Your task to perform on an android device: delete a single message in the gmail app Image 0: 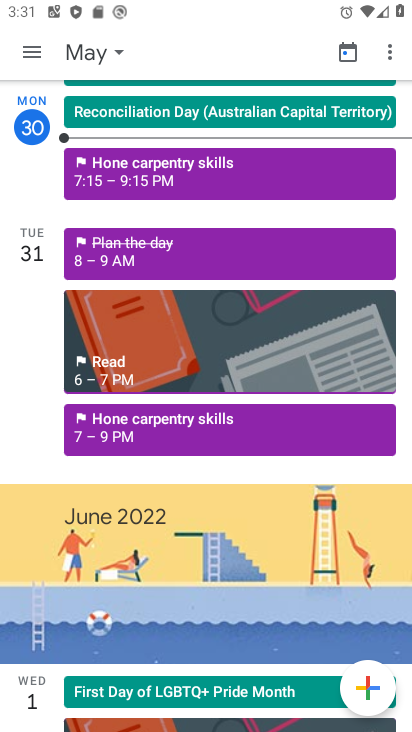
Step 0: press home button
Your task to perform on an android device: delete a single message in the gmail app Image 1: 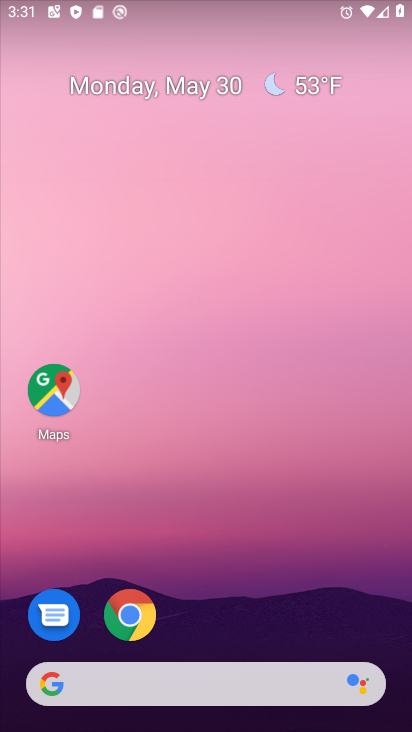
Step 1: drag from (250, 572) to (269, 148)
Your task to perform on an android device: delete a single message in the gmail app Image 2: 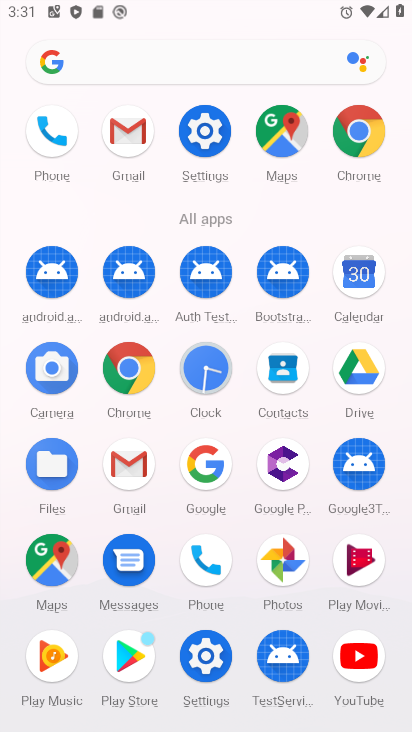
Step 2: click (125, 162)
Your task to perform on an android device: delete a single message in the gmail app Image 3: 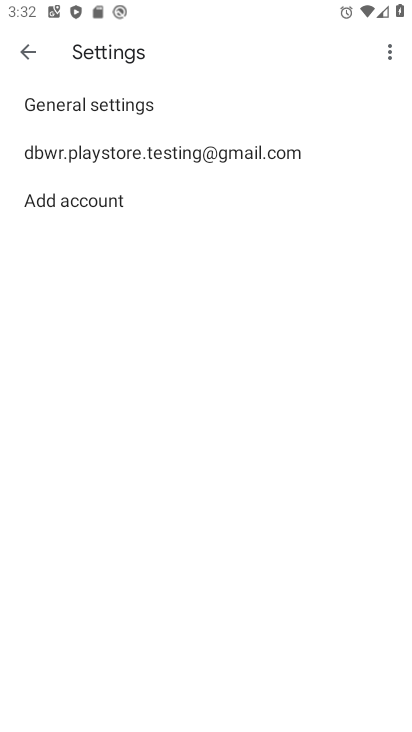
Step 3: click (28, 57)
Your task to perform on an android device: delete a single message in the gmail app Image 4: 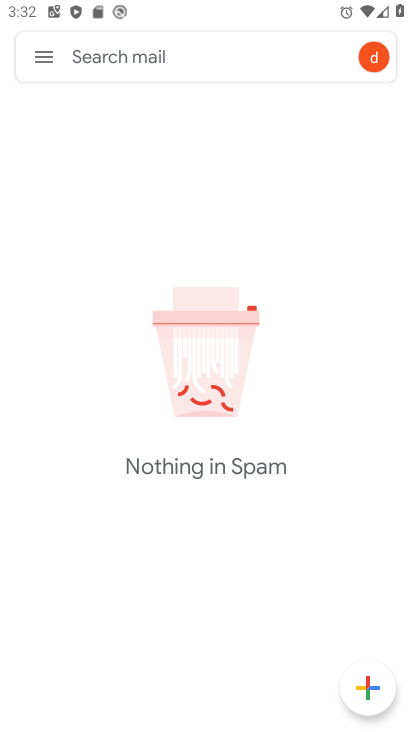
Step 4: click (40, 58)
Your task to perform on an android device: delete a single message in the gmail app Image 5: 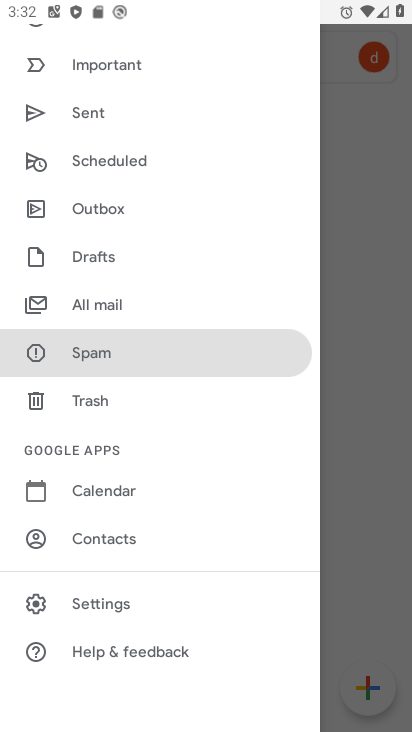
Step 5: click (121, 309)
Your task to perform on an android device: delete a single message in the gmail app Image 6: 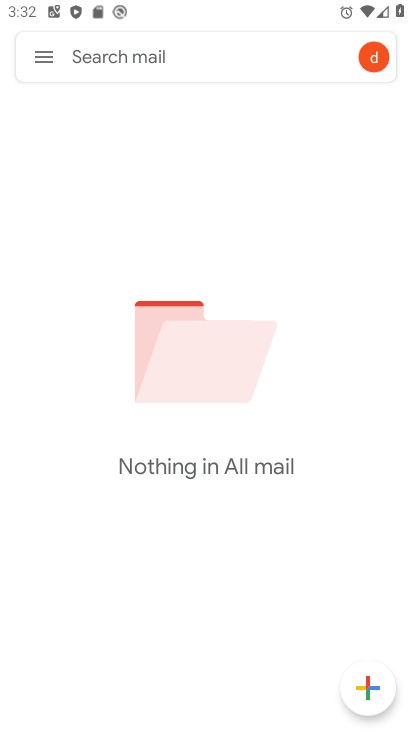
Step 6: task complete